Your task to perform on an android device: turn vacation reply on in the gmail app Image 0: 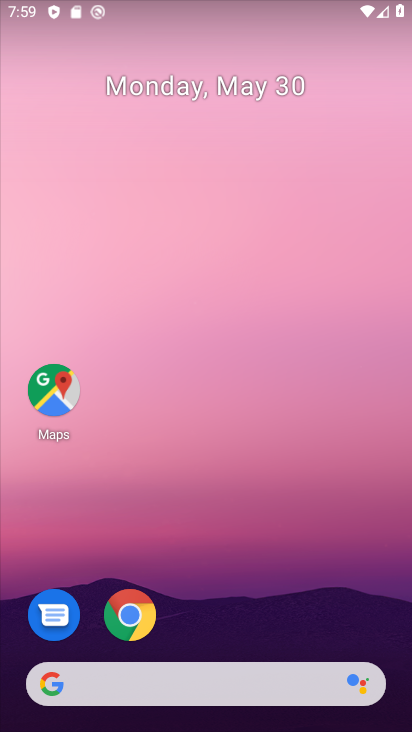
Step 0: press home button
Your task to perform on an android device: turn vacation reply on in the gmail app Image 1: 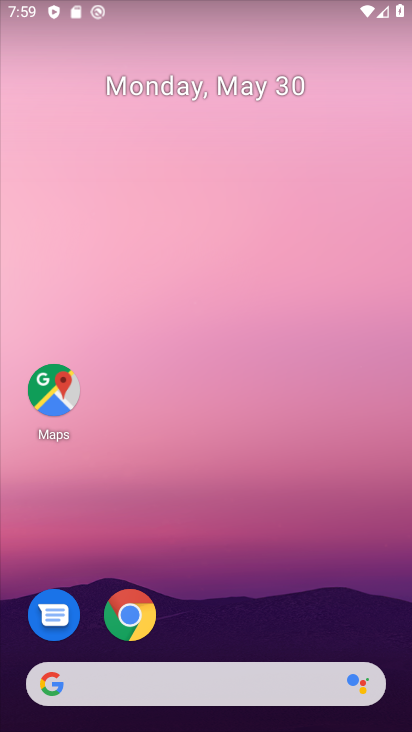
Step 1: drag from (228, 632) to (261, 109)
Your task to perform on an android device: turn vacation reply on in the gmail app Image 2: 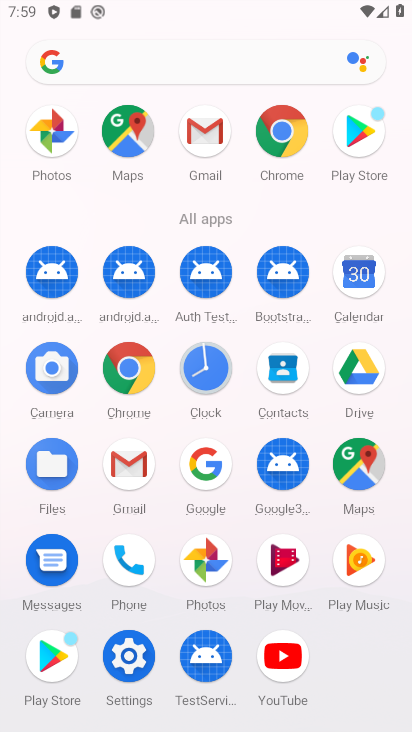
Step 2: click (129, 455)
Your task to perform on an android device: turn vacation reply on in the gmail app Image 3: 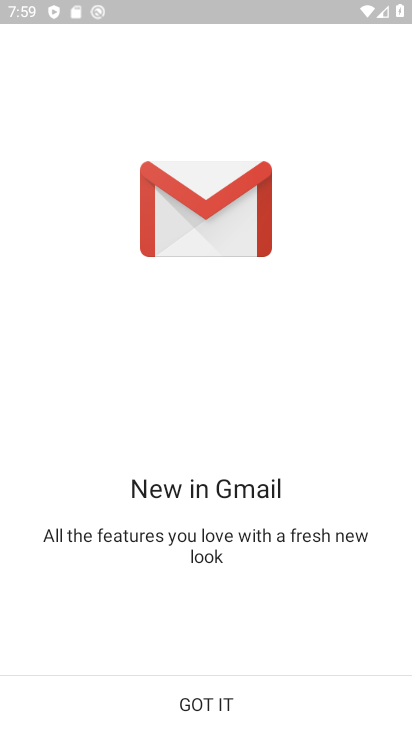
Step 3: click (215, 713)
Your task to perform on an android device: turn vacation reply on in the gmail app Image 4: 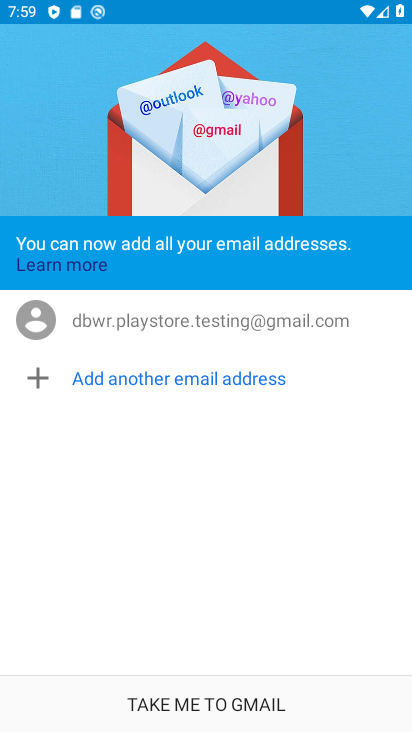
Step 4: click (215, 713)
Your task to perform on an android device: turn vacation reply on in the gmail app Image 5: 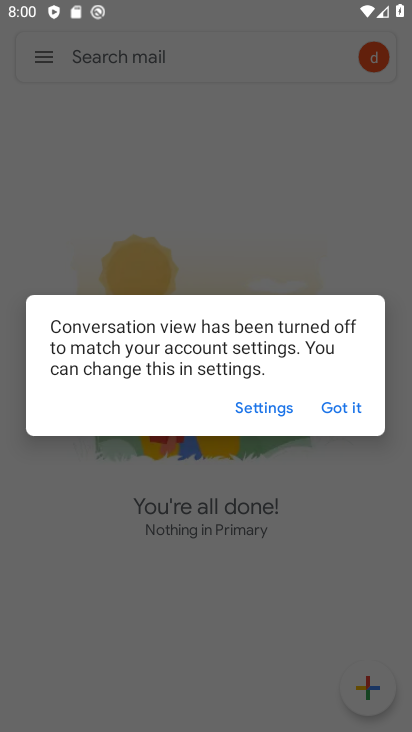
Step 5: click (342, 411)
Your task to perform on an android device: turn vacation reply on in the gmail app Image 6: 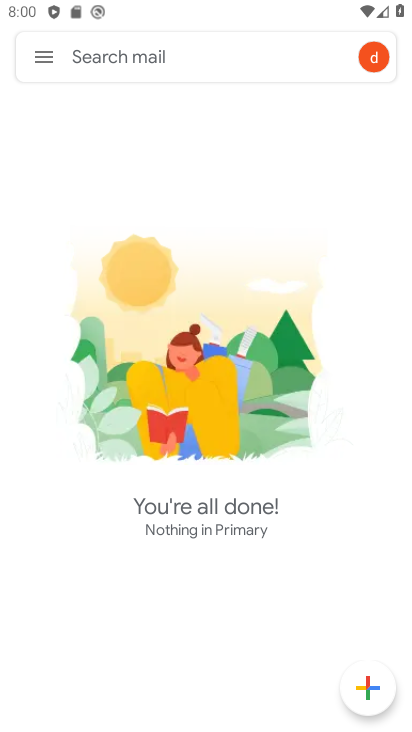
Step 6: click (39, 53)
Your task to perform on an android device: turn vacation reply on in the gmail app Image 7: 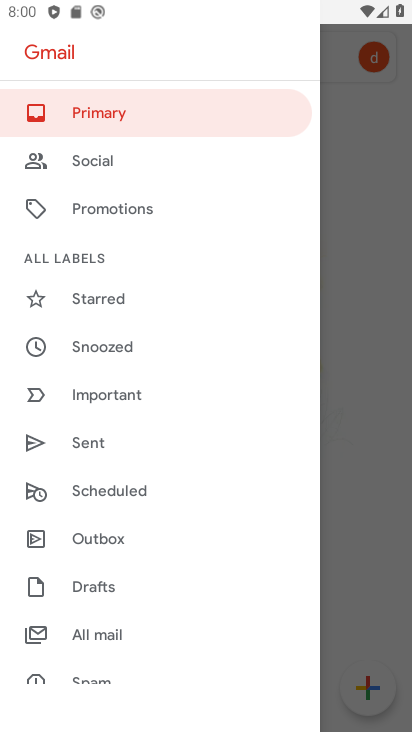
Step 7: drag from (179, 637) to (206, 281)
Your task to perform on an android device: turn vacation reply on in the gmail app Image 8: 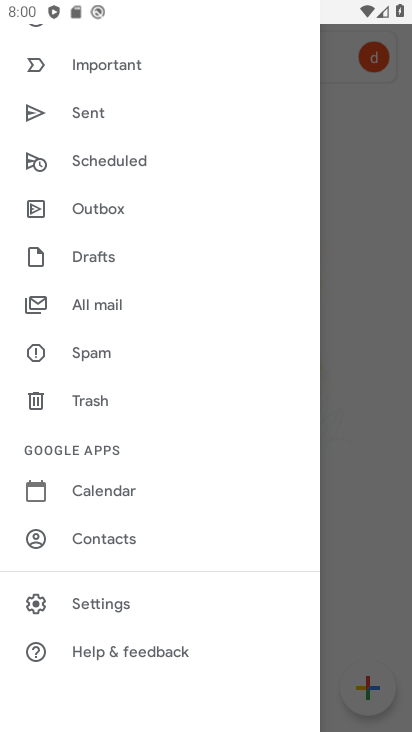
Step 8: click (144, 601)
Your task to perform on an android device: turn vacation reply on in the gmail app Image 9: 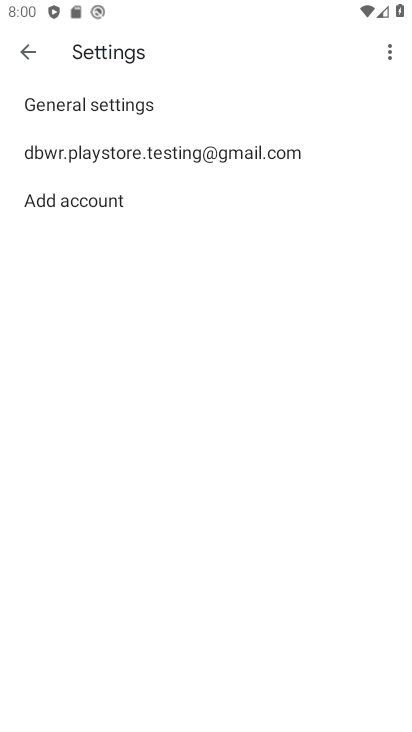
Step 9: click (191, 153)
Your task to perform on an android device: turn vacation reply on in the gmail app Image 10: 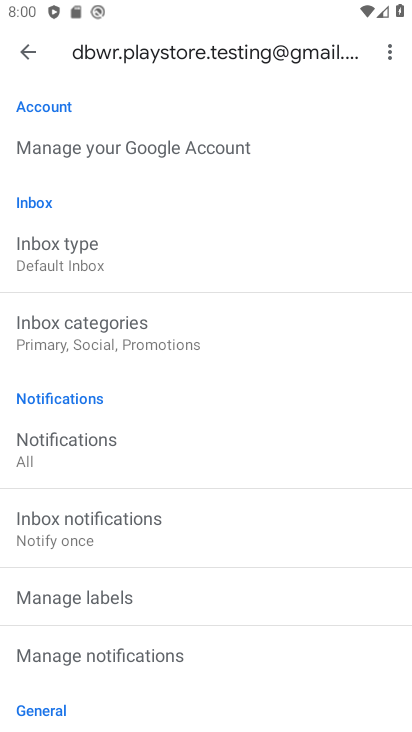
Step 10: drag from (178, 612) to (227, 120)
Your task to perform on an android device: turn vacation reply on in the gmail app Image 11: 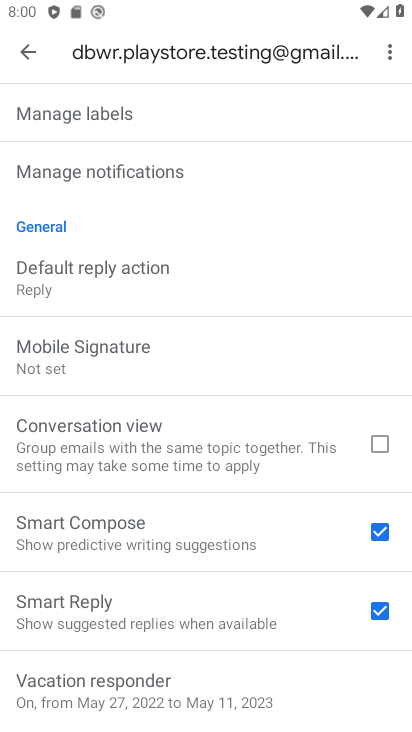
Step 11: click (166, 680)
Your task to perform on an android device: turn vacation reply on in the gmail app Image 12: 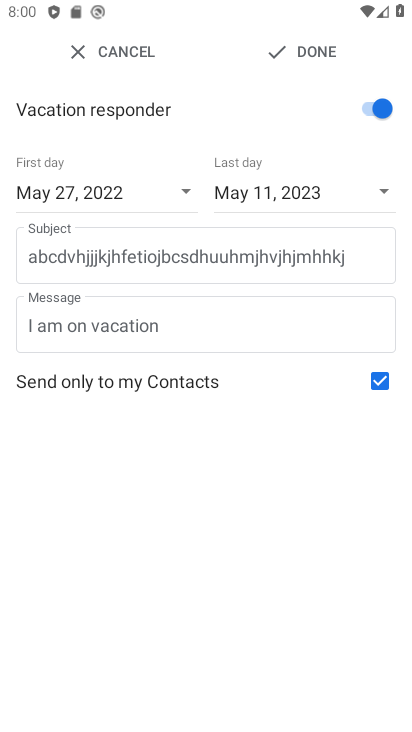
Step 12: task complete